Your task to perform on an android device: open sync settings in chrome Image 0: 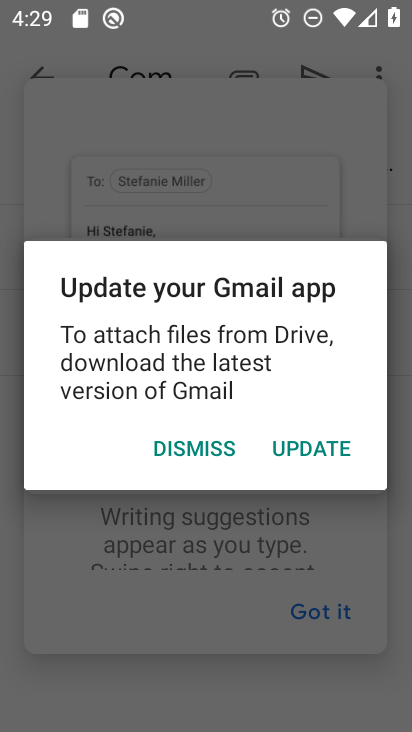
Step 0: press home button
Your task to perform on an android device: open sync settings in chrome Image 1: 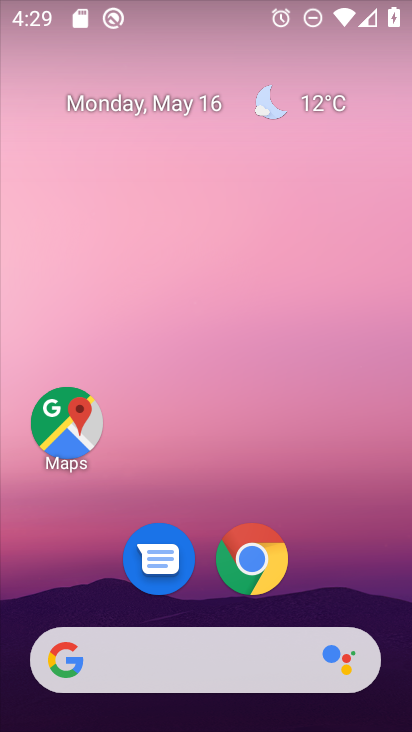
Step 1: click (278, 561)
Your task to perform on an android device: open sync settings in chrome Image 2: 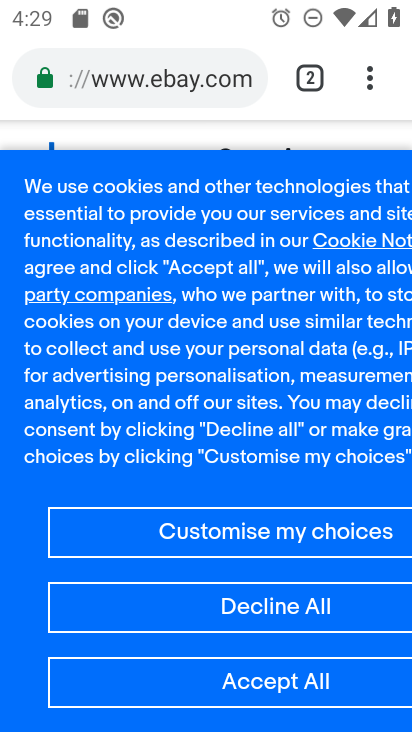
Step 2: click (317, 79)
Your task to perform on an android device: open sync settings in chrome Image 3: 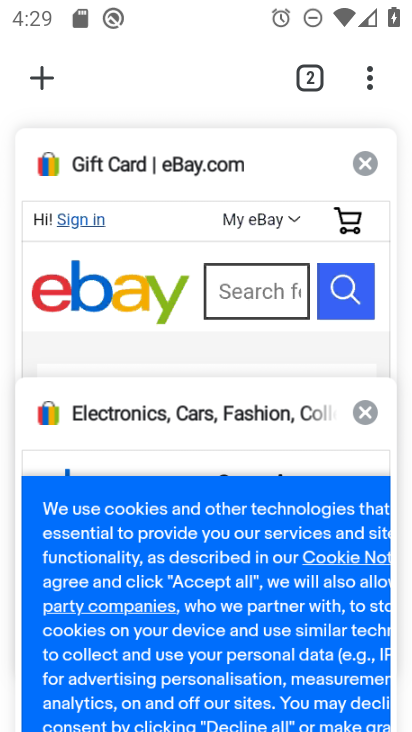
Step 3: click (366, 81)
Your task to perform on an android device: open sync settings in chrome Image 4: 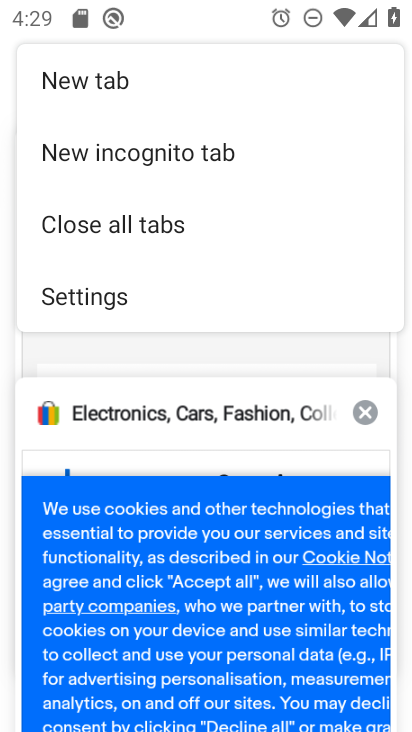
Step 4: click (140, 301)
Your task to perform on an android device: open sync settings in chrome Image 5: 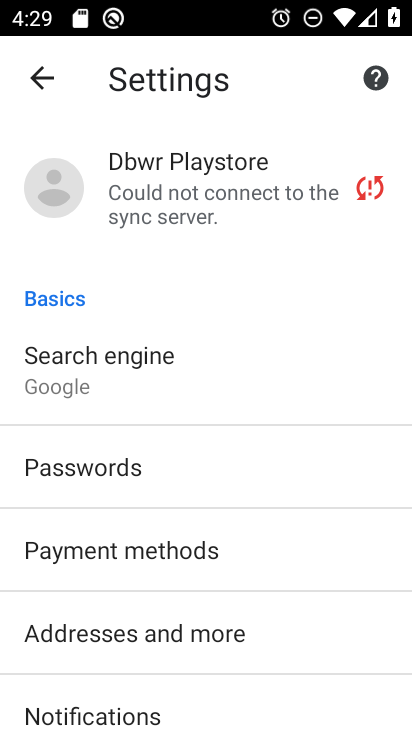
Step 5: click (203, 205)
Your task to perform on an android device: open sync settings in chrome Image 6: 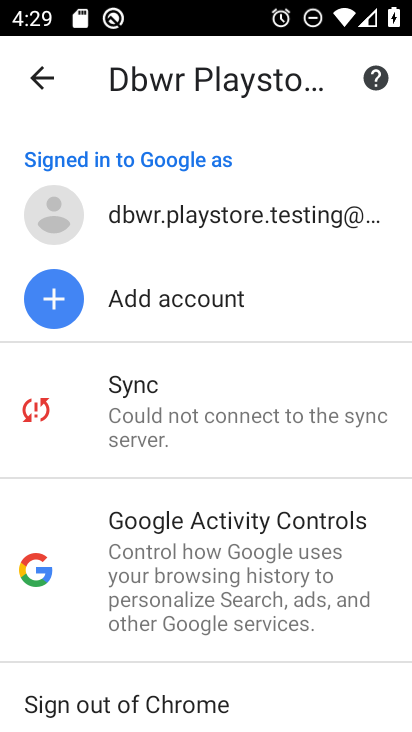
Step 6: click (165, 403)
Your task to perform on an android device: open sync settings in chrome Image 7: 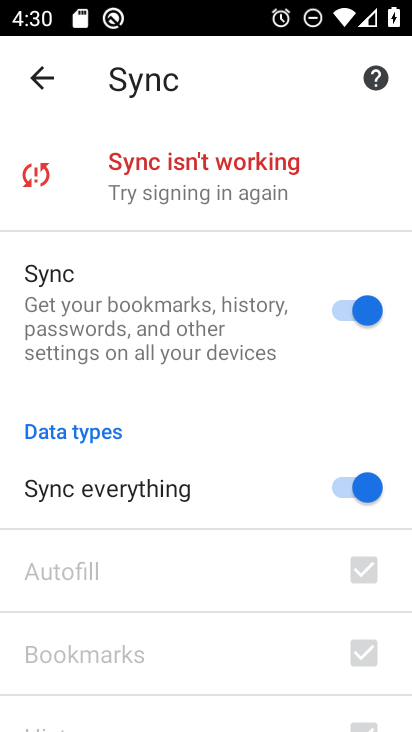
Step 7: task complete